Your task to perform on an android device: set default search engine in the chrome app Image 0: 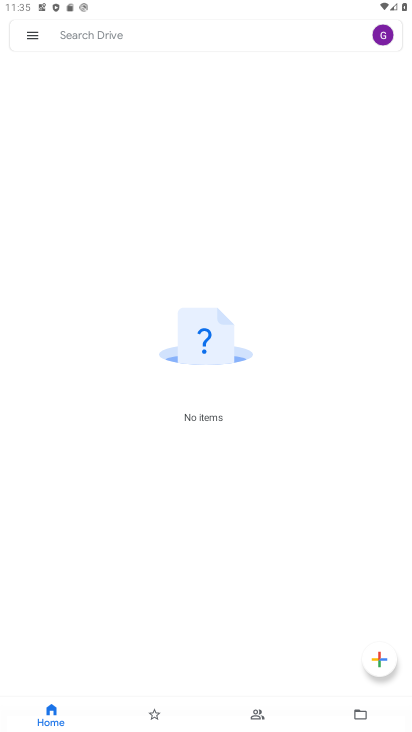
Step 0: press home button
Your task to perform on an android device: set default search engine in the chrome app Image 1: 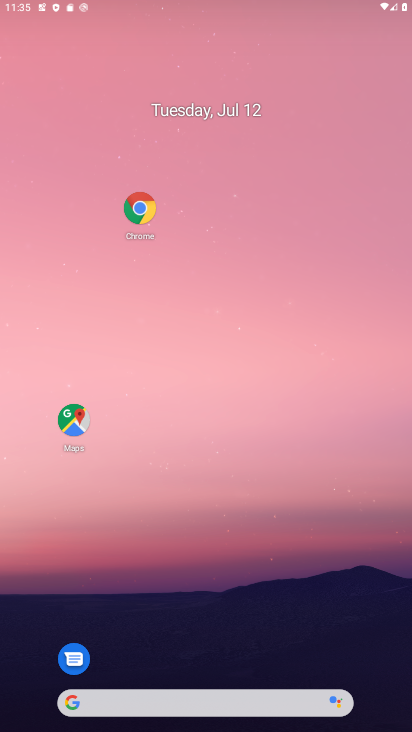
Step 1: drag from (332, 648) to (303, 21)
Your task to perform on an android device: set default search engine in the chrome app Image 2: 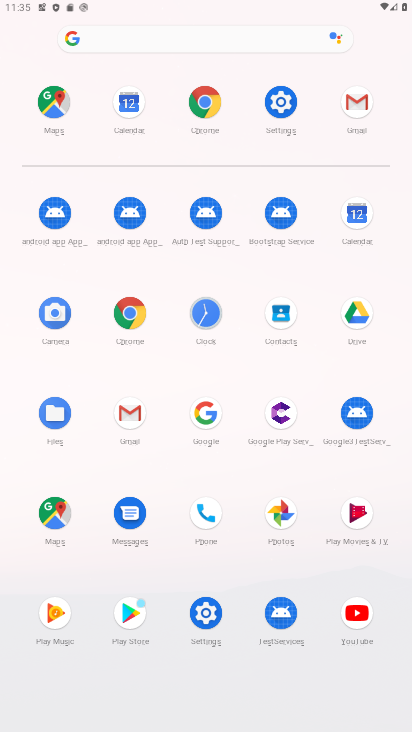
Step 2: click (135, 320)
Your task to perform on an android device: set default search engine in the chrome app Image 3: 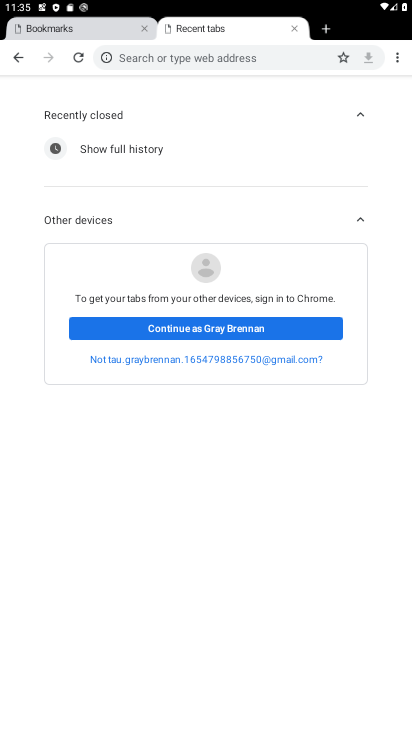
Step 3: drag from (395, 52) to (304, 266)
Your task to perform on an android device: set default search engine in the chrome app Image 4: 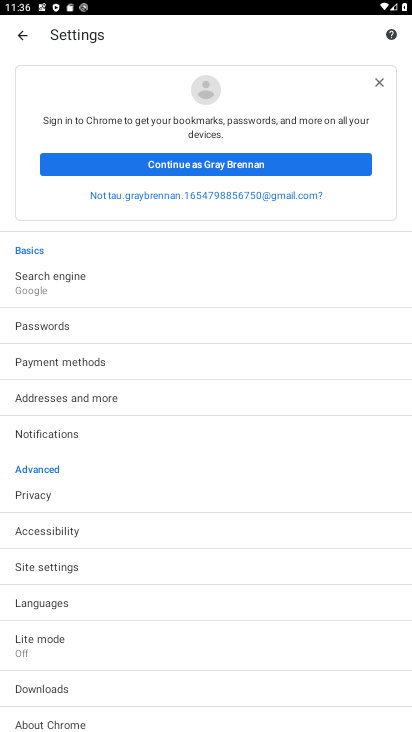
Step 4: click (78, 292)
Your task to perform on an android device: set default search engine in the chrome app Image 5: 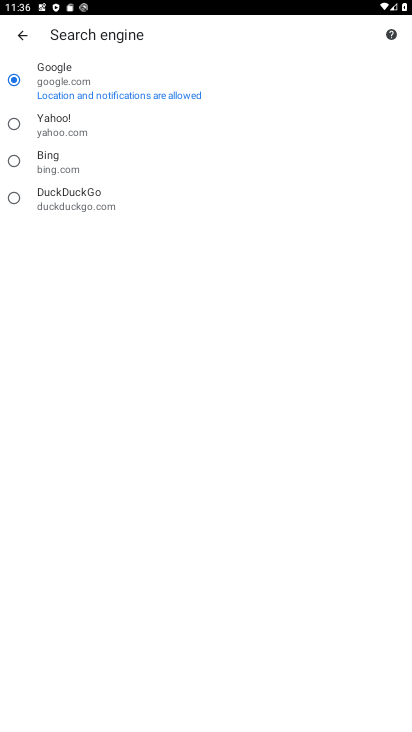
Step 5: task complete